Your task to perform on an android device: Open maps Image 0: 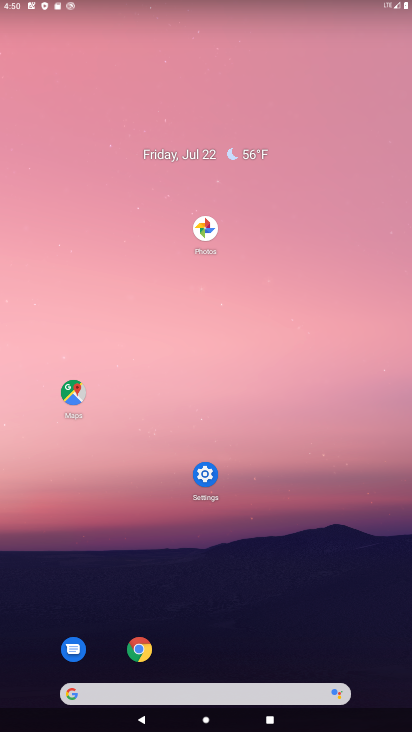
Step 0: drag from (242, 631) to (179, 101)
Your task to perform on an android device: Open maps Image 1: 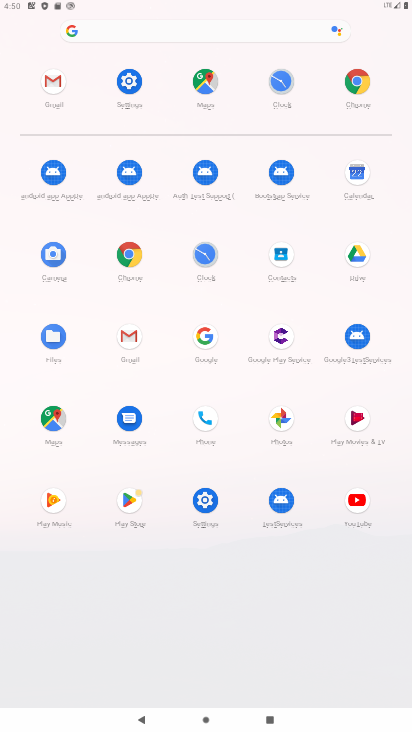
Step 1: click (53, 417)
Your task to perform on an android device: Open maps Image 2: 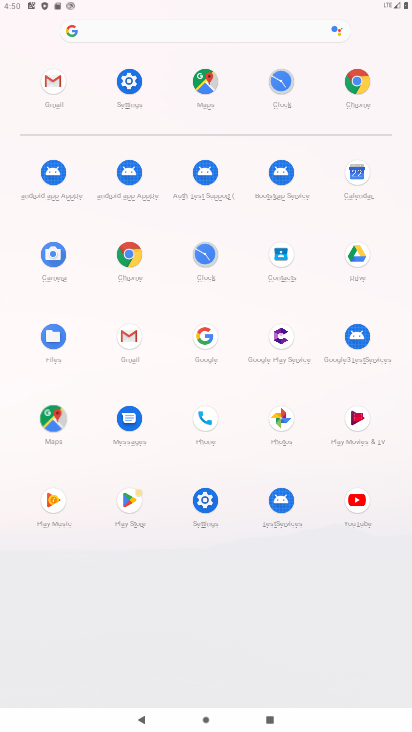
Step 2: click (53, 417)
Your task to perform on an android device: Open maps Image 3: 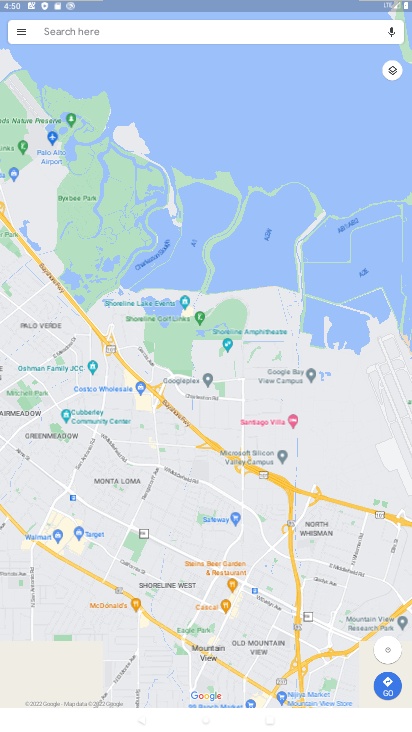
Step 3: task complete